Your task to perform on an android device: Open maps Image 0: 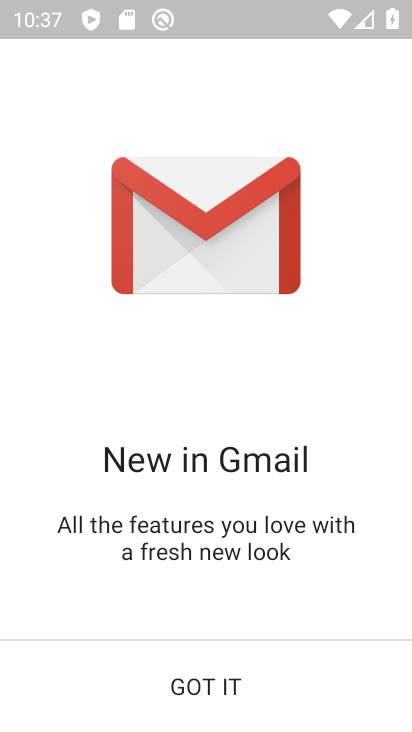
Step 0: click (275, 666)
Your task to perform on an android device: Open maps Image 1: 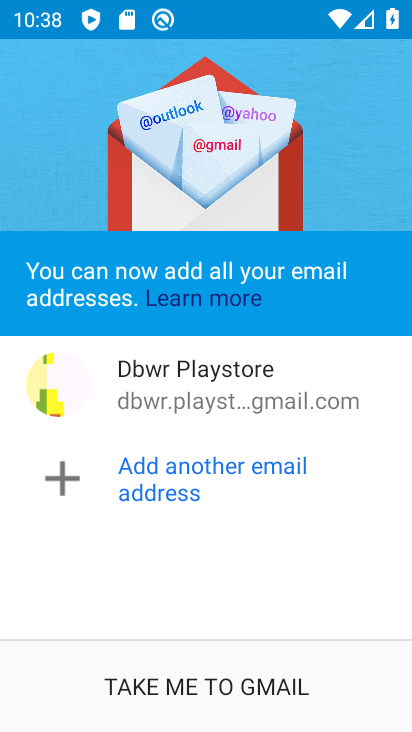
Step 1: click (278, 662)
Your task to perform on an android device: Open maps Image 2: 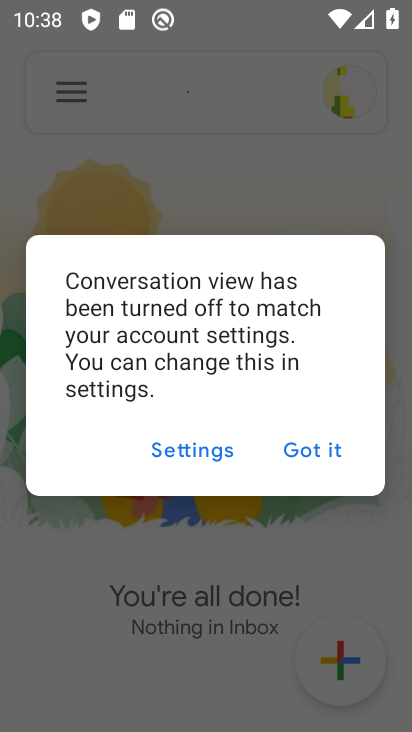
Step 2: press home button
Your task to perform on an android device: Open maps Image 3: 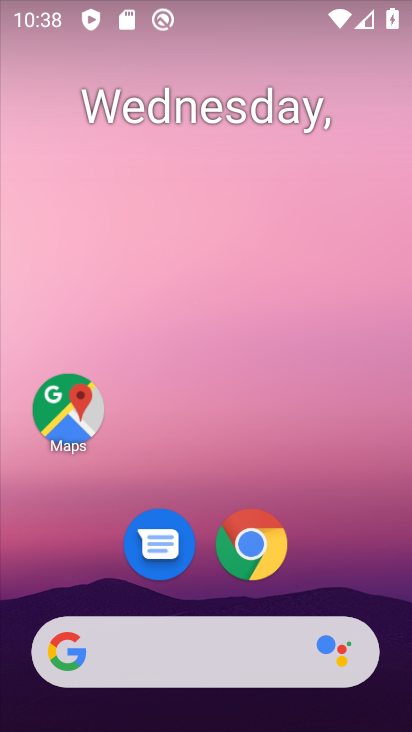
Step 3: click (80, 419)
Your task to perform on an android device: Open maps Image 4: 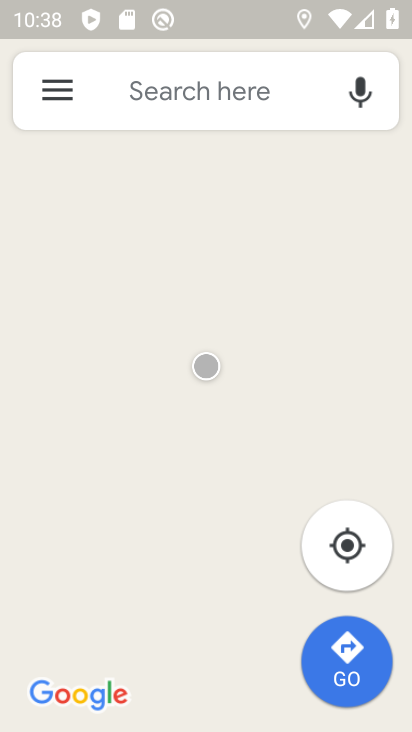
Step 4: task complete